Your task to perform on an android device: allow cookies in the chrome app Image 0: 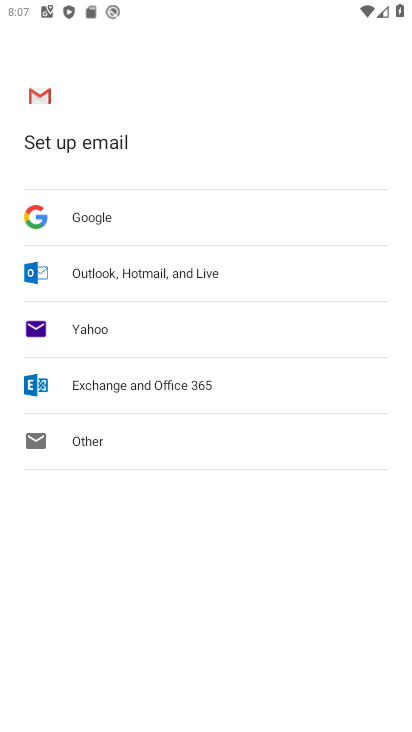
Step 0: press home button
Your task to perform on an android device: allow cookies in the chrome app Image 1: 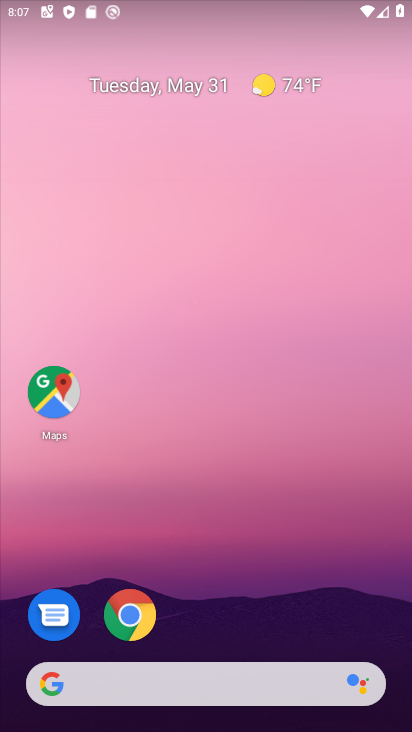
Step 1: click (131, 617)
Your task to perform on an android device: allow cookies in the chrome app Image 2: 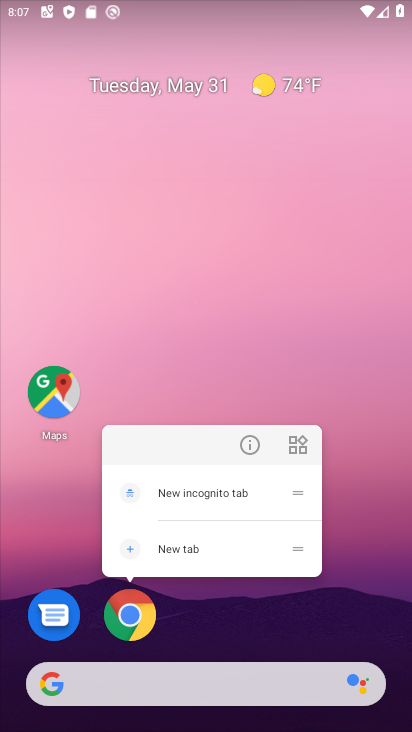
Step 2: click (140, 610)
Your task to perform on an android device: allow cookies in the chrome app Image 3: 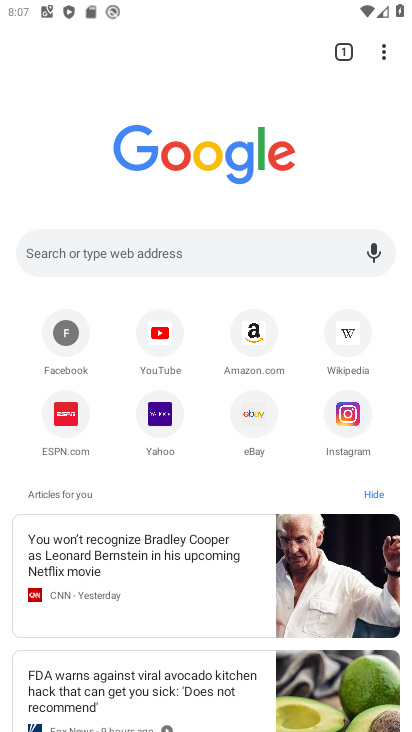
Step 3: drag from (383, 53) to (252, 443)
Your task to perform on an android device: allow cookies in the chrome app Image 4: 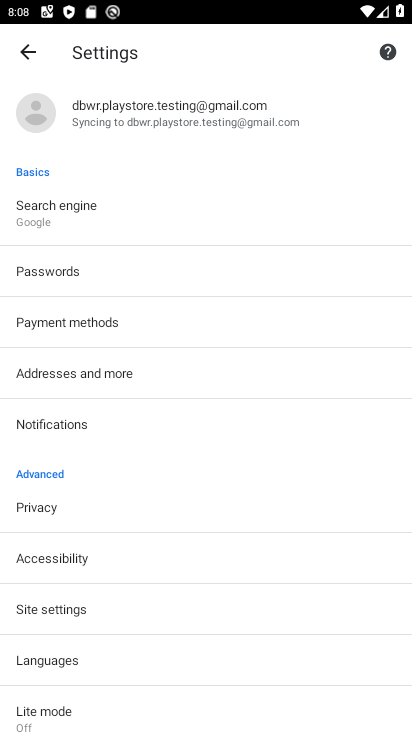
Step 4: click (69, 613)
Your task to perform on an android device: allow cookies in the chrome app Image 5: 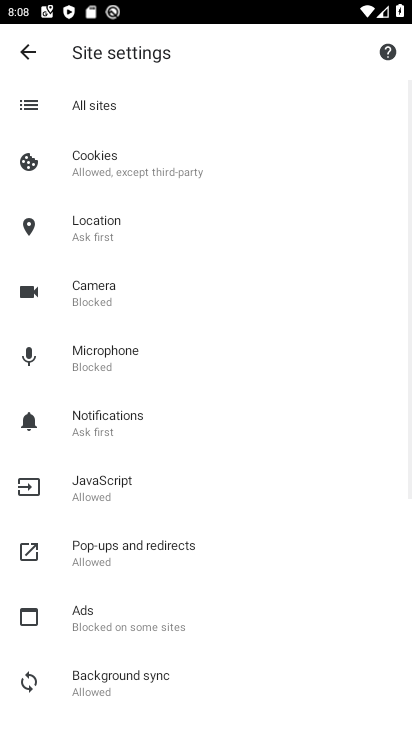
Step 5: click (142, 161)
Your task to perform on an android device: allow cookies in the chrome app Image 6: 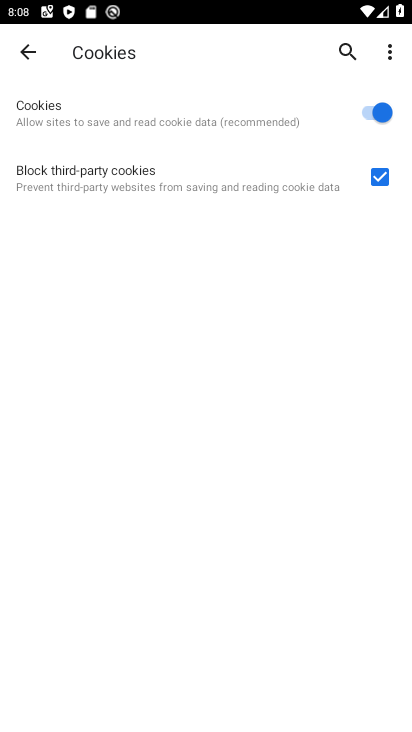
Step 6: task complete